Your task to perform on an android device: turn on priority inbox in the gmail app Image 0: 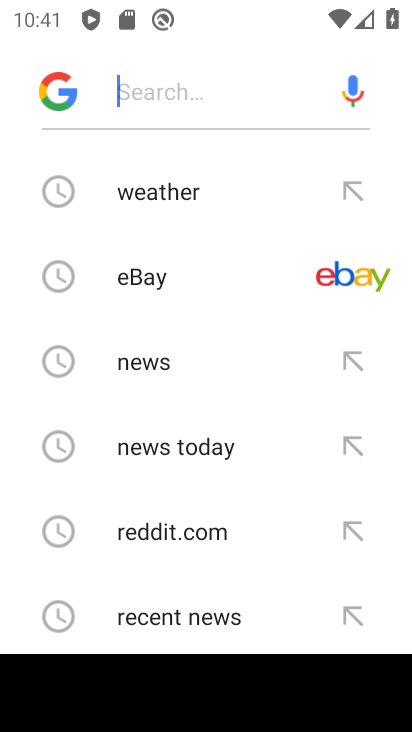
Step 0: press home button
Your task to perform on an android device: turn on priority inbox in the gmail app Image 1: 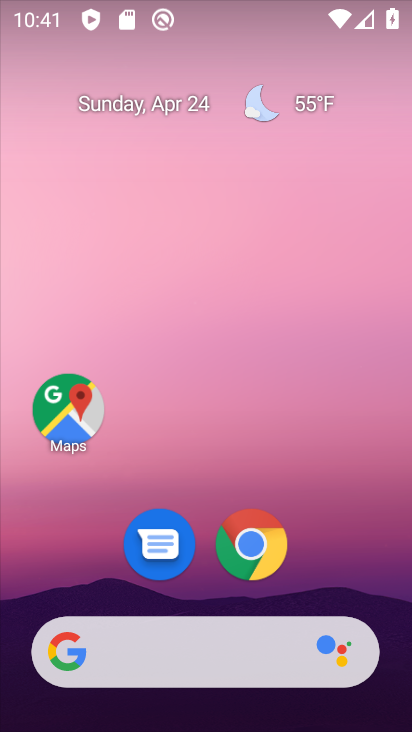
Step 1: drag from (304, 499) to (309, 106)
Your task to perform on an android device: turn on priority inbox in the gmail app Image 2: 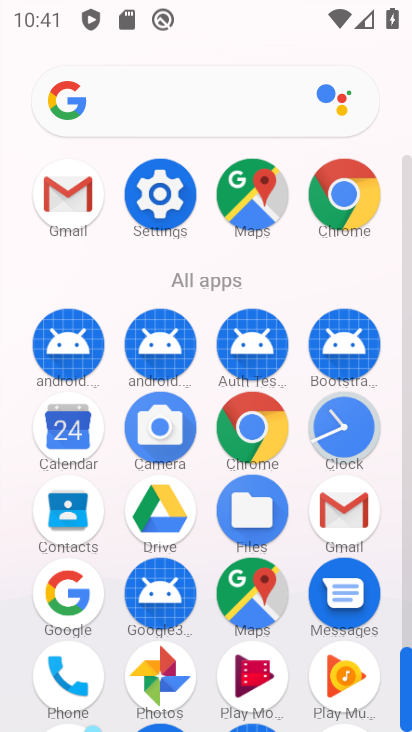
Step 2: click (336, 504)
Your task to perform on an android device: turn on priority inbox in the gmail app Image 3: 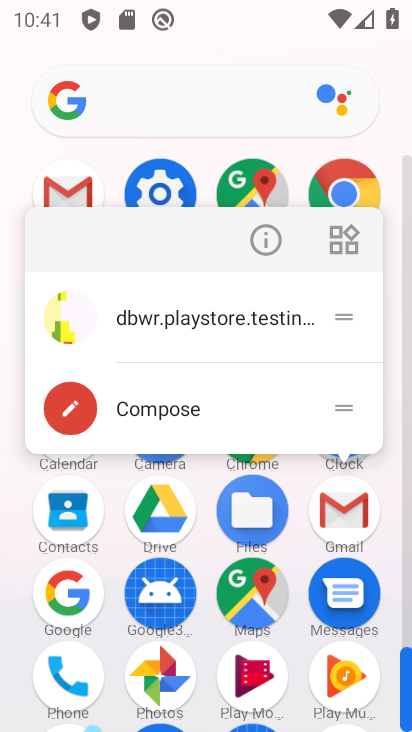
Step 3: click (343, 503)
Your task to perform on an android device: turn on priority inbox in the gmail app Image 4: 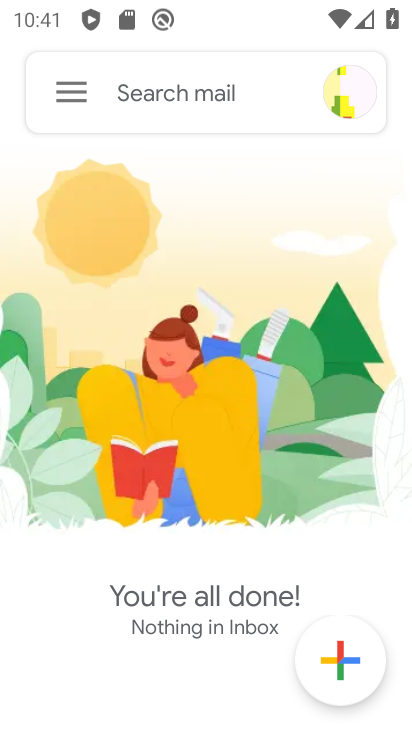
Step 4: click (72, 90)
Your task to perform on an android device: turn on priority inbox in the gmail app Image 5: 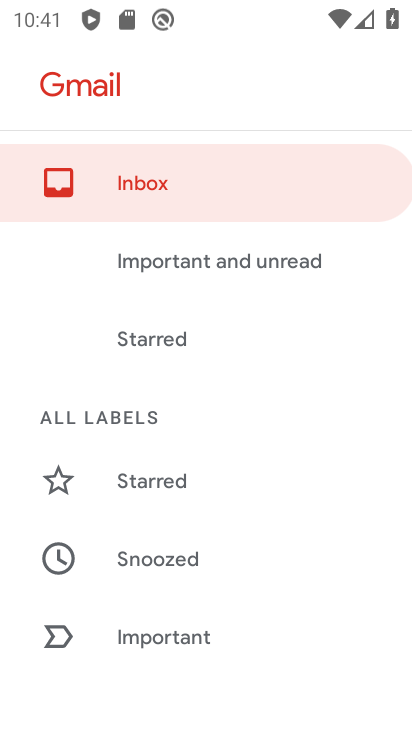
Step 5: drag from (262, 582) to (255, 124)
Your task to perform on an android device: turn on priority inbox in the gmail app Image 6: 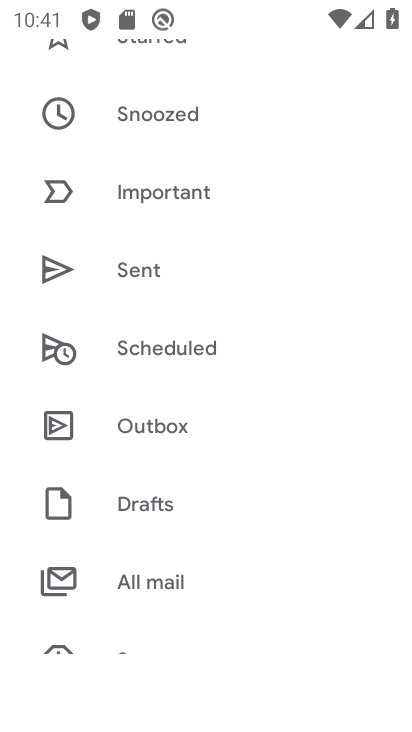
Step 6: drag from (342, 604) to (328, 84)
Your task to perform on an android device: turn on priority inbox in the gmail app Image 7: 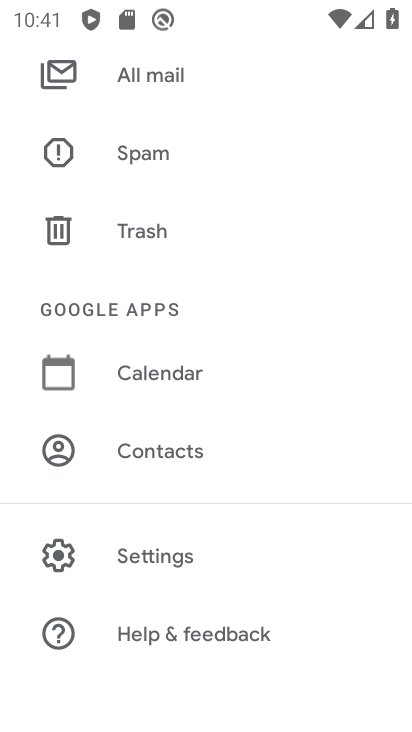
Step 7: click (150, 555)
Your task to perform on an android device: turn on priority inbox in the gmail app Image 8: 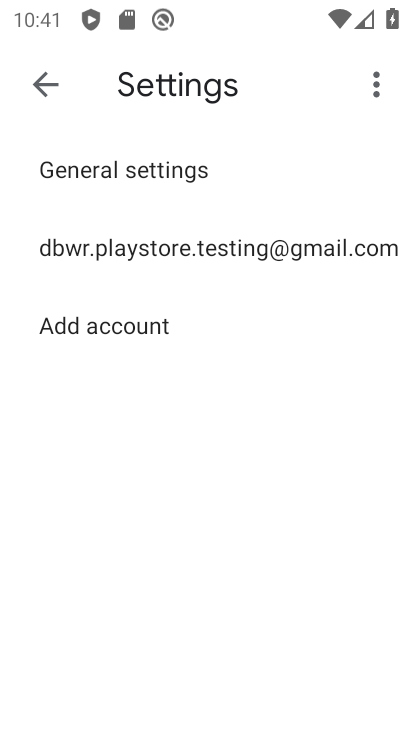
Step 8: click (165, 250)
Your task to perform on an android device: turn on priority inbox in the gmail app Image 9: 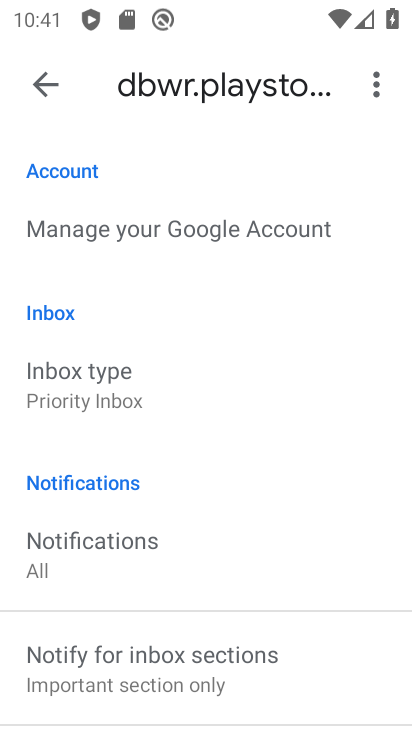
Step 9: task complete